Your task to perform on an android device: see tabs open on other devices in the chrome app Image 0: 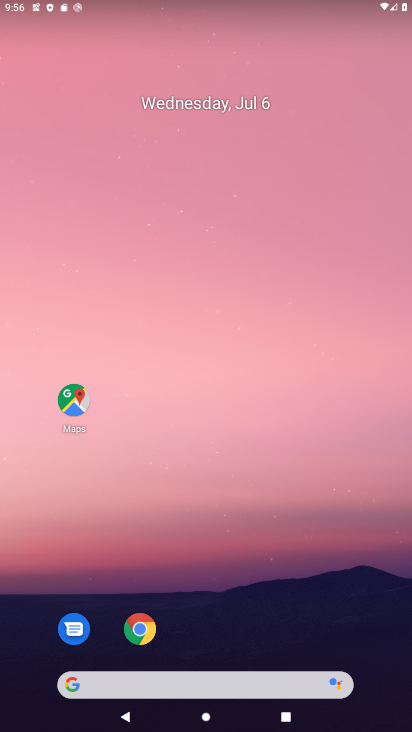
Step 0: click (146, 628)
Your task to perform on an android device: see tabs open on other devices in the chrome app Image 1: 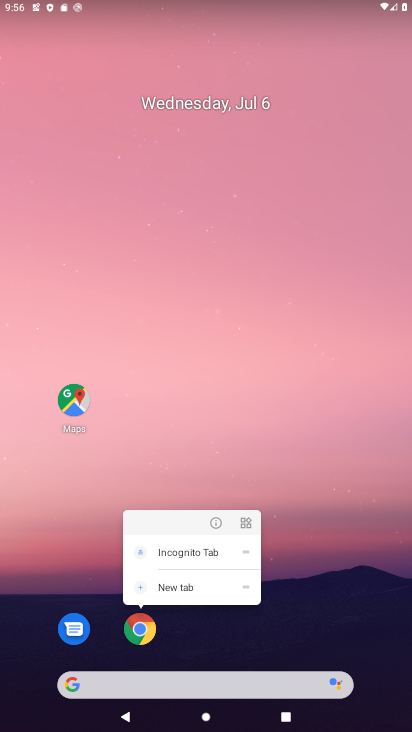
Step 1: click (146, 628)
Your task to perform on an android device: see tabs open on other devices in the chrome app Image 2: 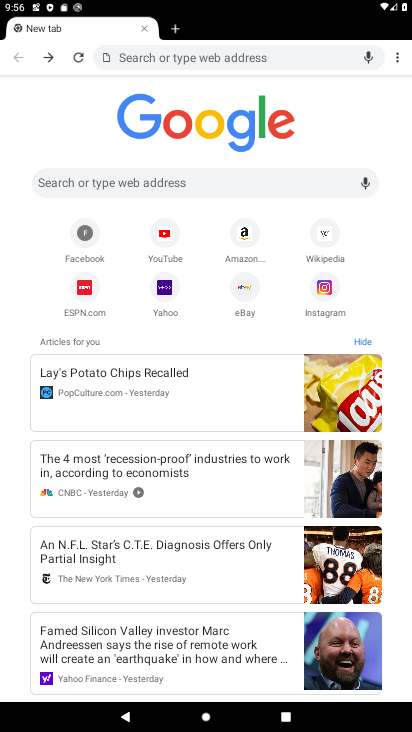
Step 2: click (391, 62)
Your task to perform on an android device: see tabs open on other devices in the chrome app Image 3: 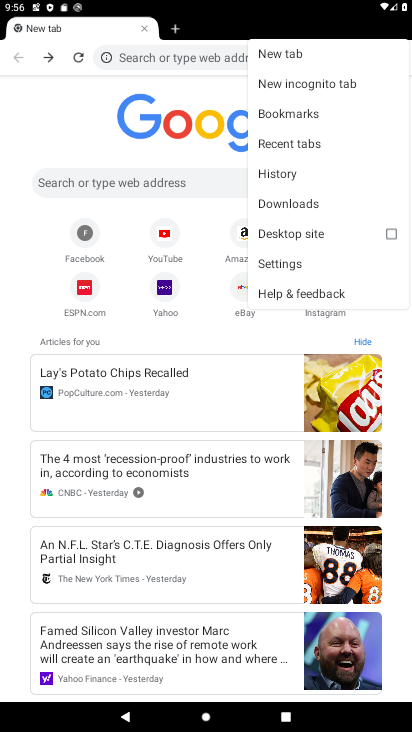
Step 3: click (300, 144)
Your task to perform on an android device: see tabs open on other devices in the chrome app Image 4: 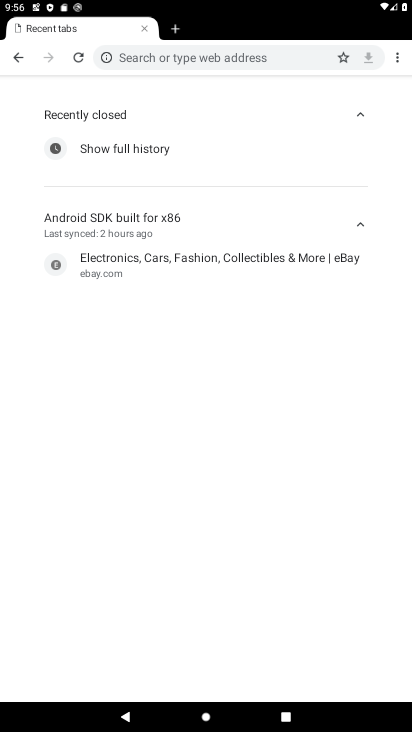
Step 4: task complete